Your task to perform on an android device: Go to network settings Image 0: 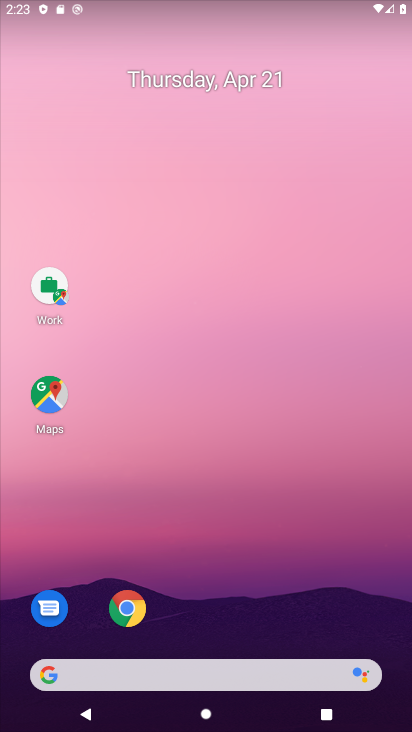
Step 0: click (184, 208)
Your task to perform on an android device: Go to network settings Image 1: 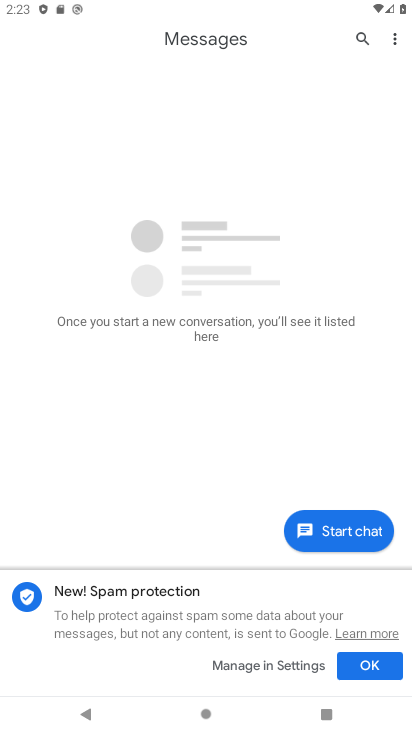
Step 1: press home button
Your task to perform on an android device: Go to network settings Image 2: 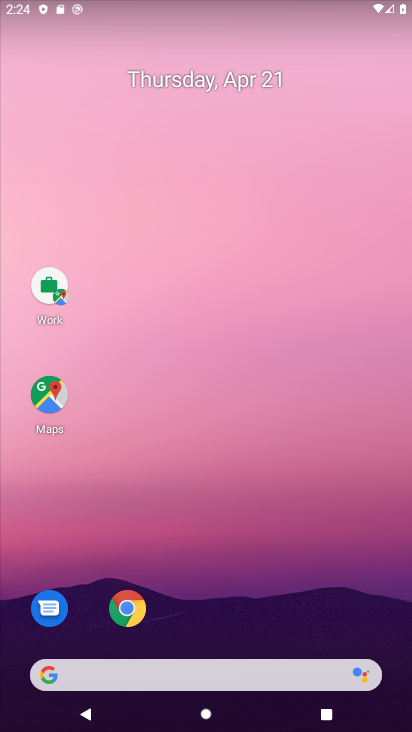
Step 2: drag from (249, 580) to (215, 194)
Your task to perform on an android device: Go to network settings Image 3: 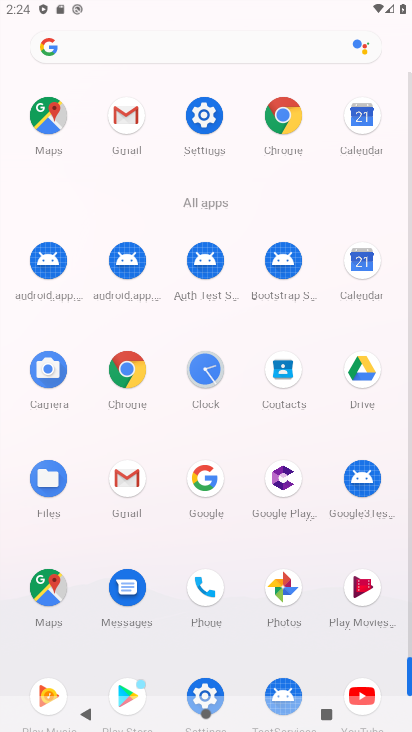
Step 3: drag from (224, 523) to (271, 368)
Your task to perform on an android device: Go to network settings Image 4: 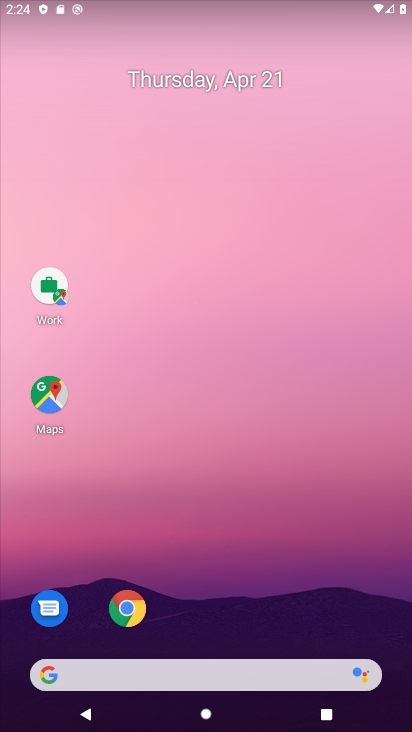
Step 4: drag from (189, 634) to (248, 278)
Your task to perform on an android device: Go to network settings Image 5: 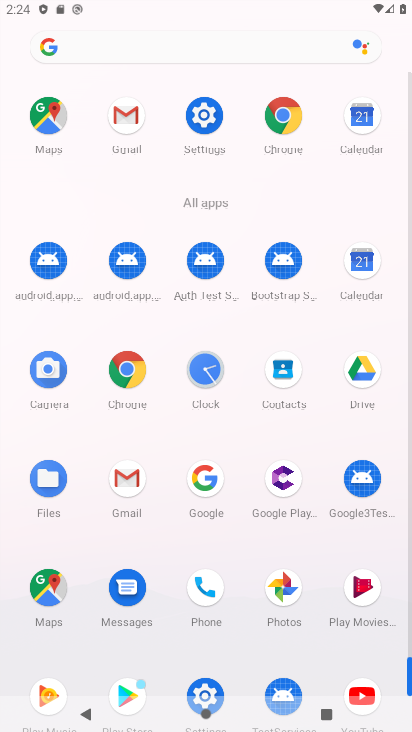
Step 5: click (218, 138)
Your task to perform on an android device: Go to network settings Image 6: 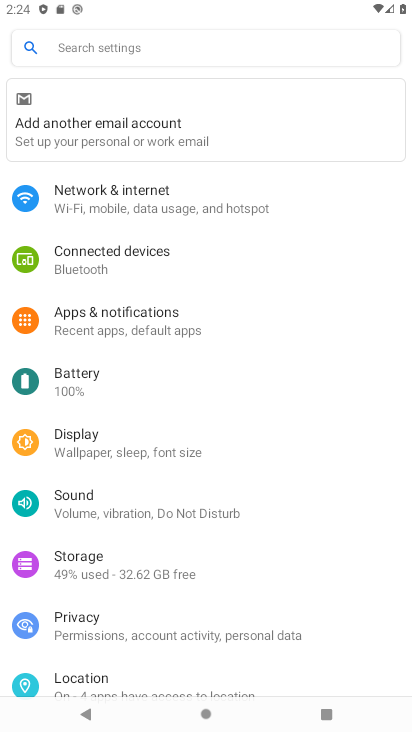
Step 6: click (121, 196)
Your task to perform on an android device: Go to network settings Image 7: 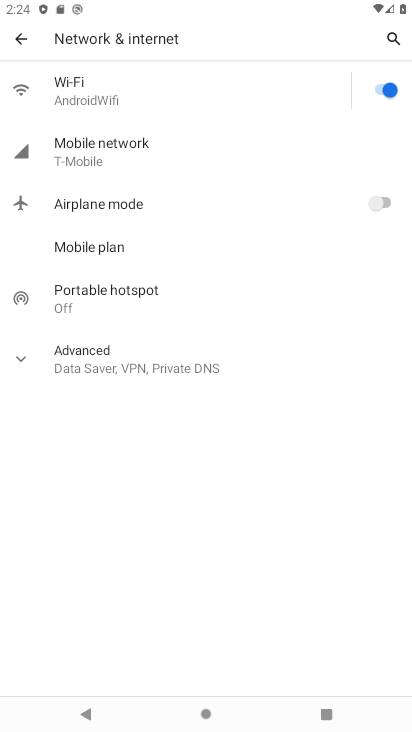
Step 7: task complete